Your task to perform on an android device: turn on sleep mode Image 0: 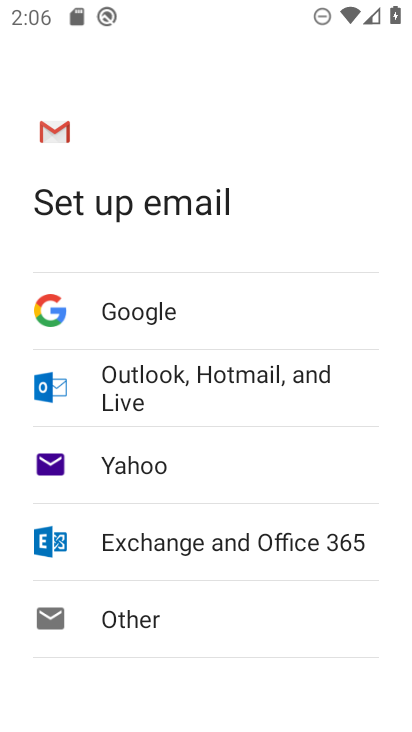
Step 0: press home button
Your task to perform on an android device: turn on sleep mode Image 1: 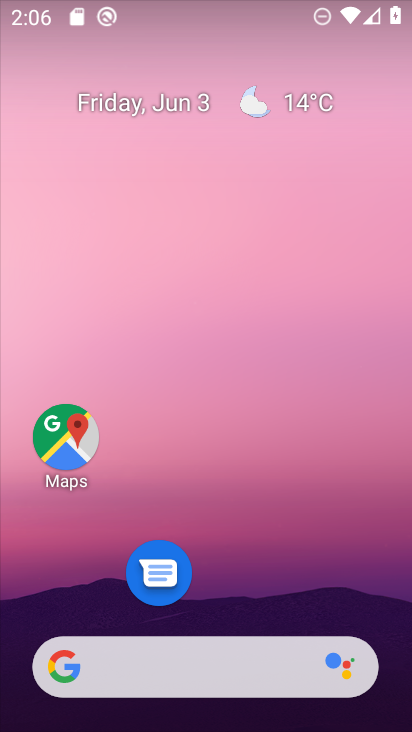
Step 1: drag from (237, 556) to (254, 0)
Your task to perform on an android device: turn on sleep mode Image 2: 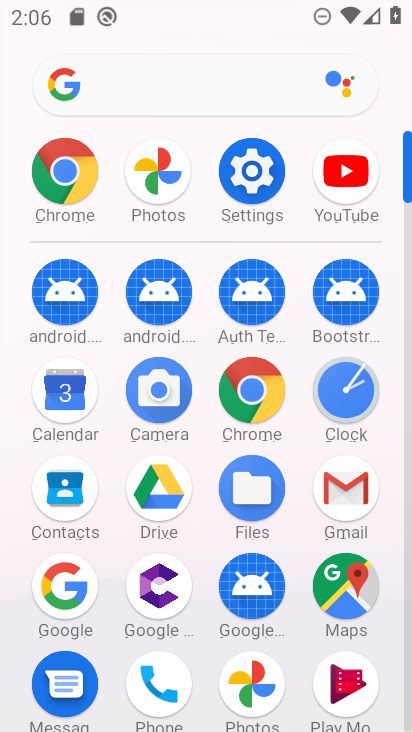
Step 2: click (264, 162)
Your task to perform on an android device: turn on sleep mode Image 3: 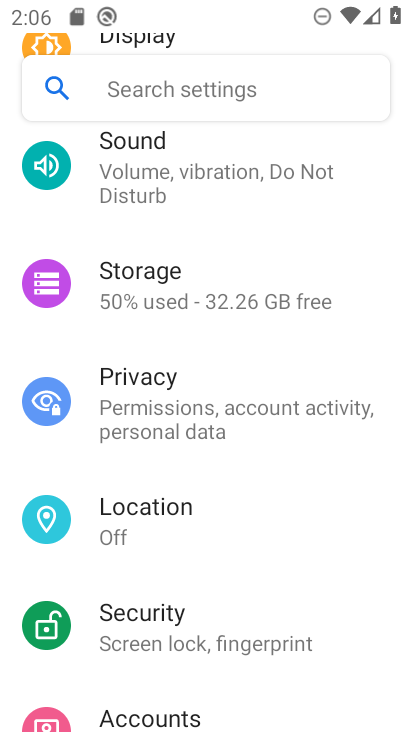
Step 3: drag from (268, 260) to (241, 624)
Your task to perform on an android device: turn on sleep mode Image 4: 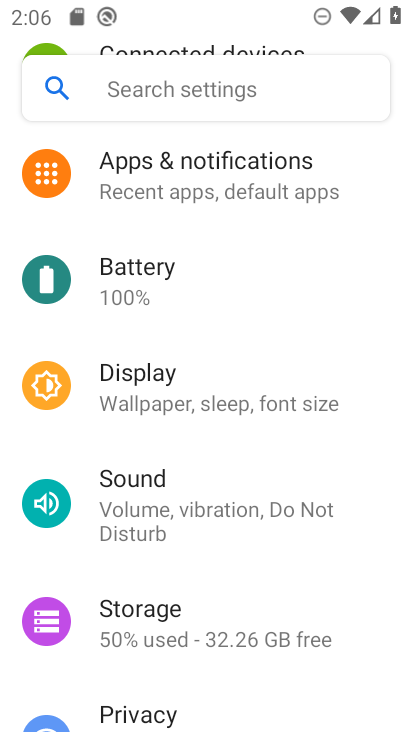
Step 4: click (232, 391)
Your task to perform on an android device: turn on sleep mode Image 5: 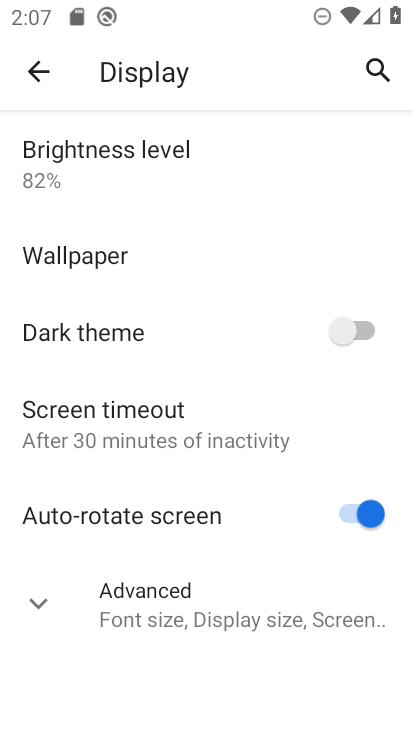
Step 5: task complete